Your task to perform on an android device: turn notification dots on Image 0: 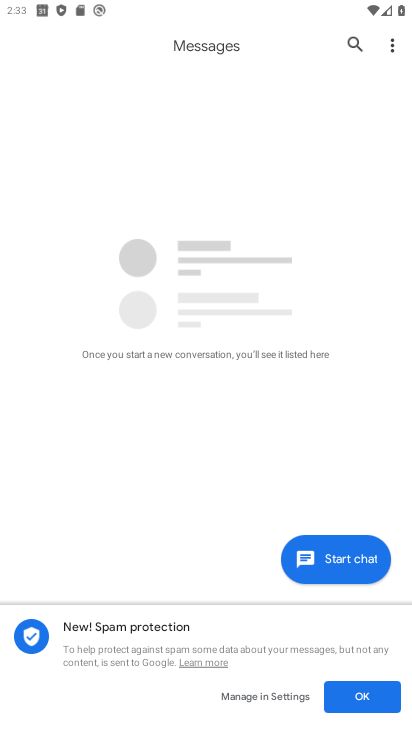
Step 0: press home button
Your task to perform on an android device: turn notification dots on Image 1: 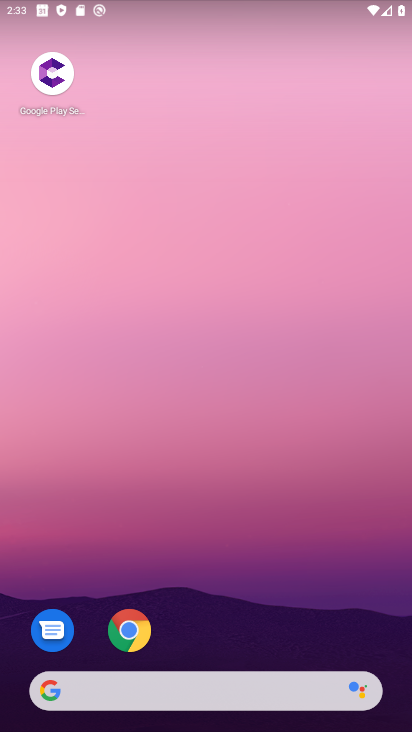
Step 1: drag from (184, 680) to (223, 51)
Your task to perform on an android device: turn notification dots on Image 2: 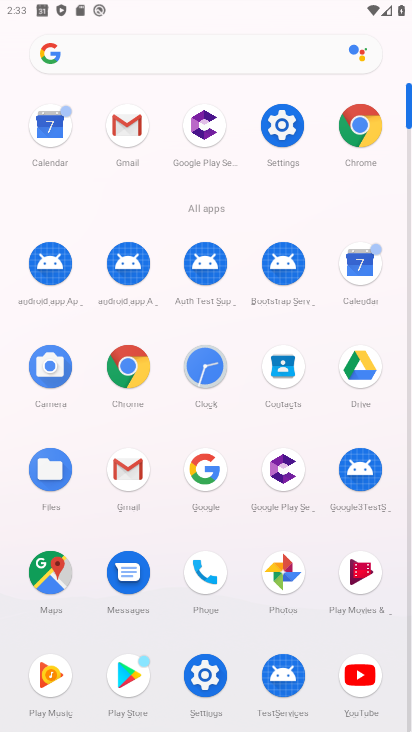
Step 2: click (272, 124)
Your task to perform on an android device: turn notification dots on Image 3: 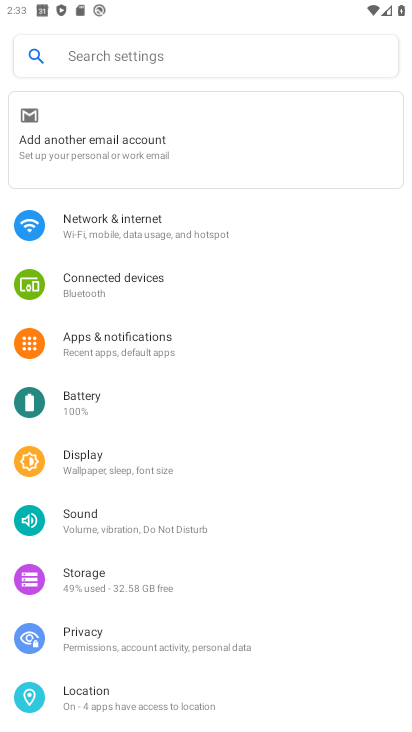
Step 3: click (101, 333)
Your task to perform on an android device: turn notification dots on Image 4: 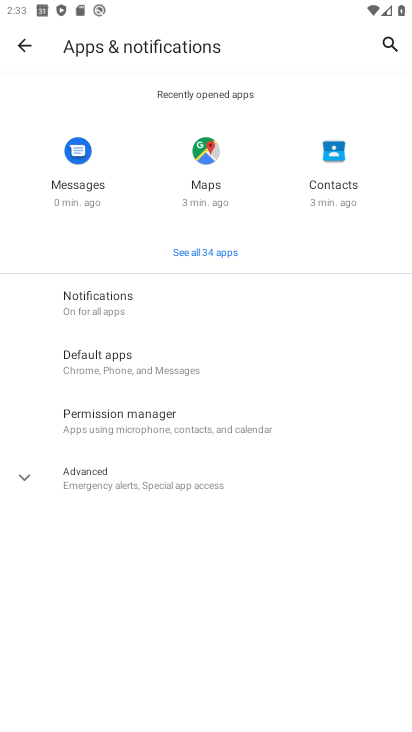
Step 4: click (142, 309)
Your task to perform on an android device: turn notification dots on Image 5: 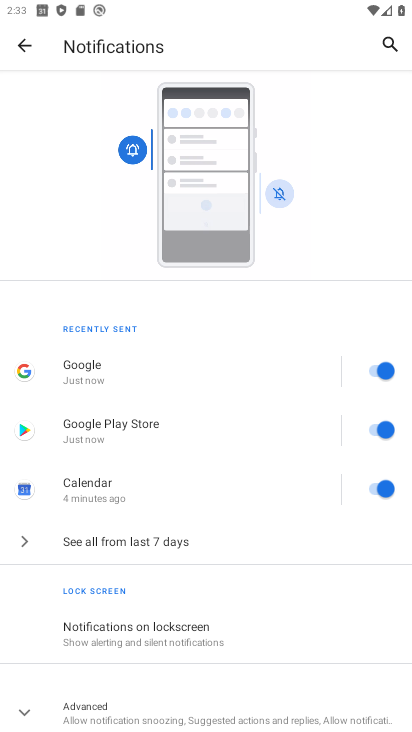
Step 5: drag from (177, 642) to (273, 240)
Your task to perform on an android device: turn notification dots on Image 6: 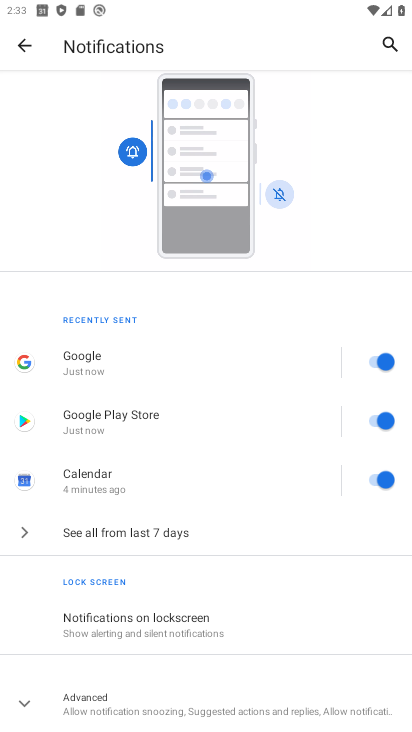
Step 6: click (106, 711)
Your task to perform on an android device: turn notification dots on Image 7: 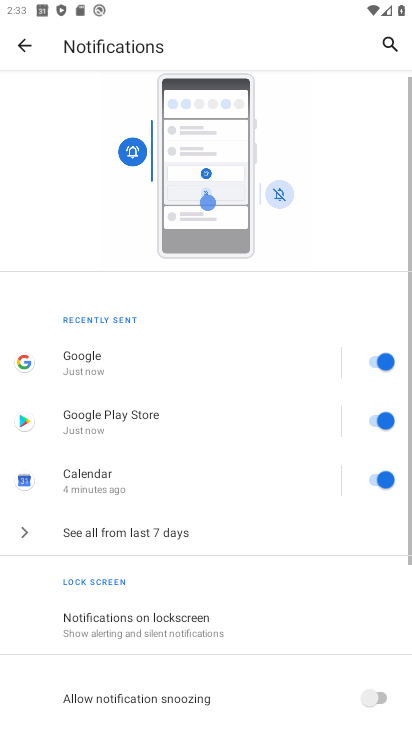
Step 7: task complete